Your task to perform on an android device: Go to privacy settings Image 0: 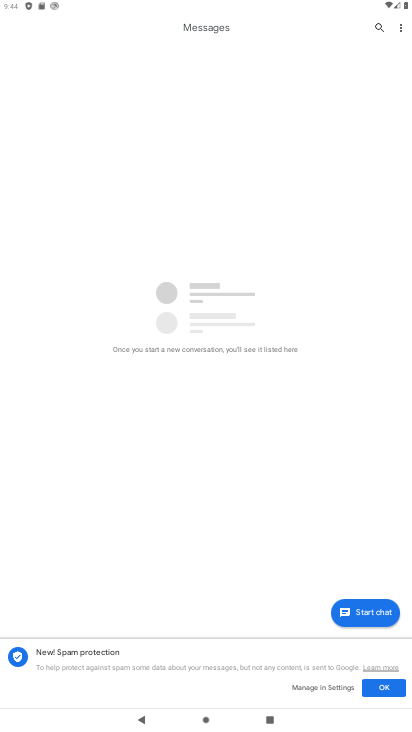
Step 0: press home button
Your task to perform on an android device: Go to privacy settings Image 1: 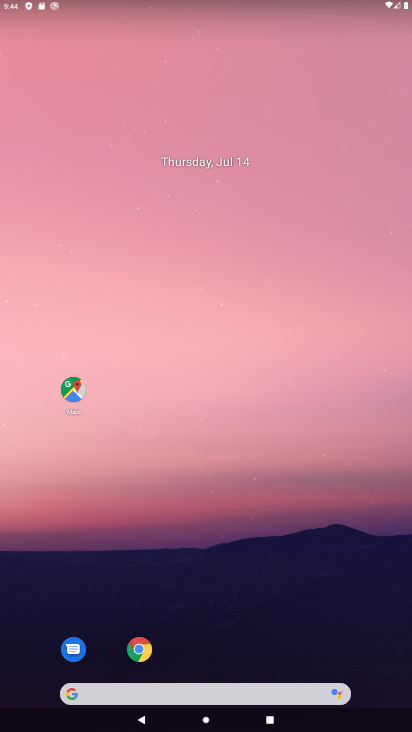
Step 1: drag from (213, 627) to (173, 156)
Your task to perform on an android device: Go to privacy settings Image 2: 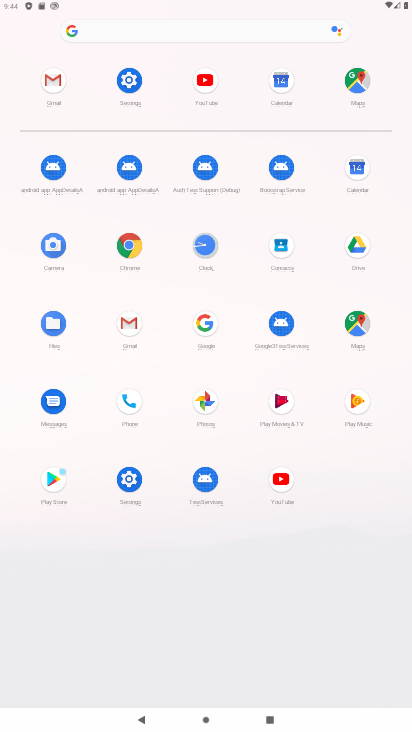
Step 2: click (143, 80)
Your task to perform on an android device: Go to privacy settings Image 3: 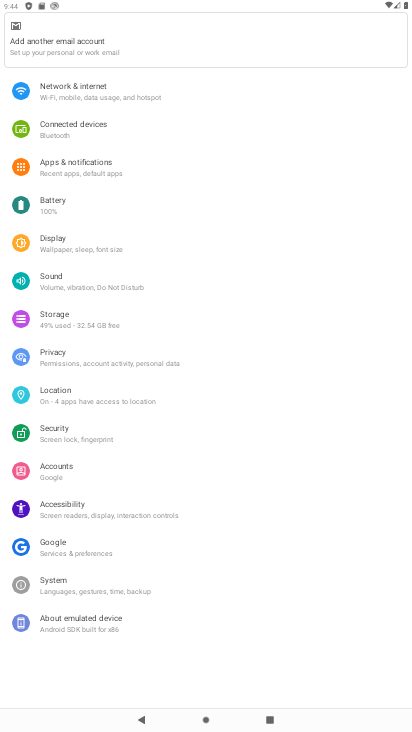
Step 3: click (58, 356)
Your task to perform on an android device: Go to privacy settings Image 4: 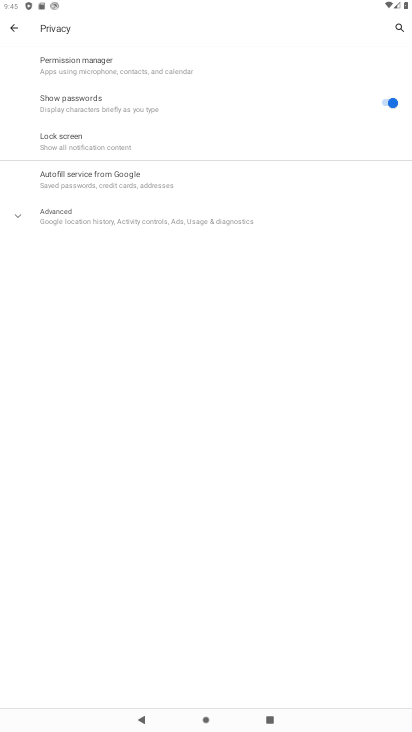
Step 4: task complete